Your task to perform on an android device: Is it going to rain tomorrow? Image 0: 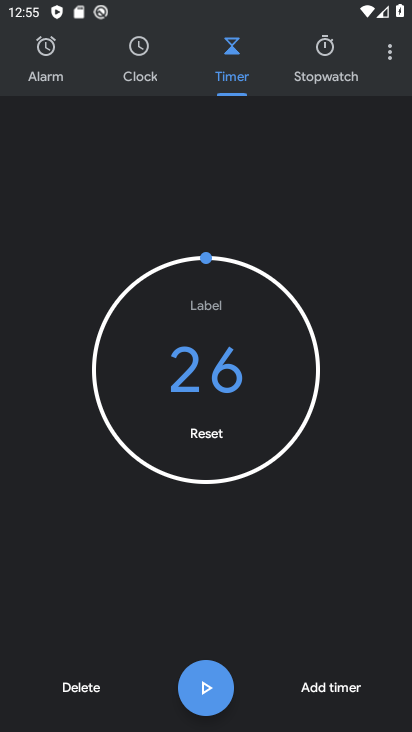
Step 0: press home button
Your task to perform on an android device: Is it going to rain tomorrow? Image 1: 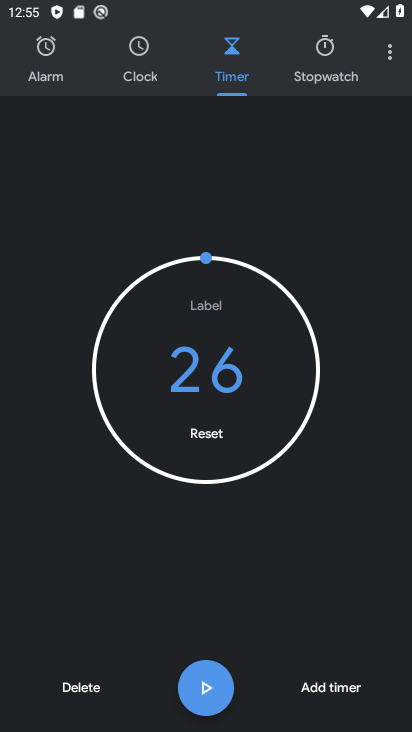
Step 1: drag from (214, 33) to (93, 14)
Your task to perform on an android device: Is it going to rain tomorrow? Image 2: 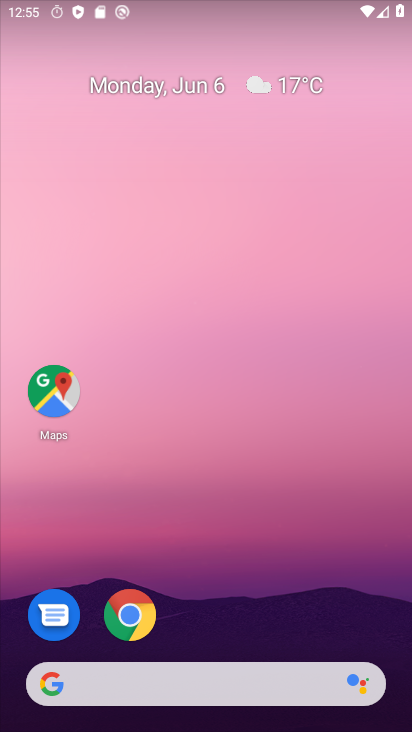
Step 2: drag from (176, 644) to (312, 29)
Your task to perform on an android device: Is it going to rain tomorrow? Image 3: 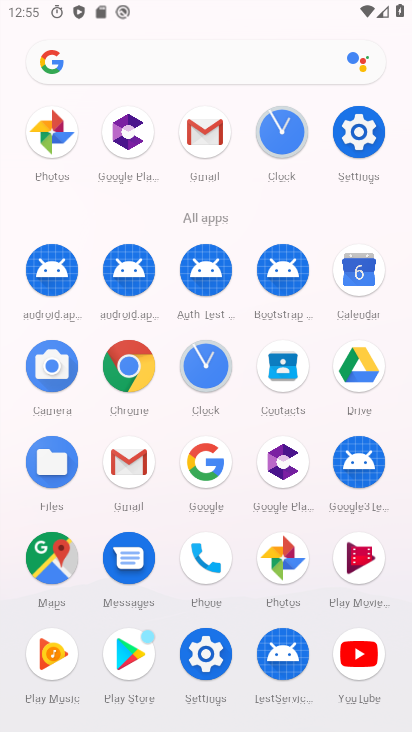
Step 3: click (143, 55)
Your task to perform on an android device: Is it going to rain tomorrow? Image 4: 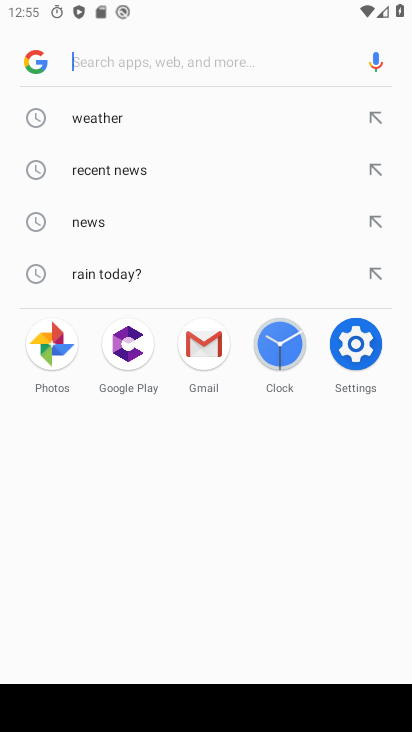
Step 4: type "rain tomorrow"
Your task to perform on an android device: Is it going to rain tomorrow? Image 5: 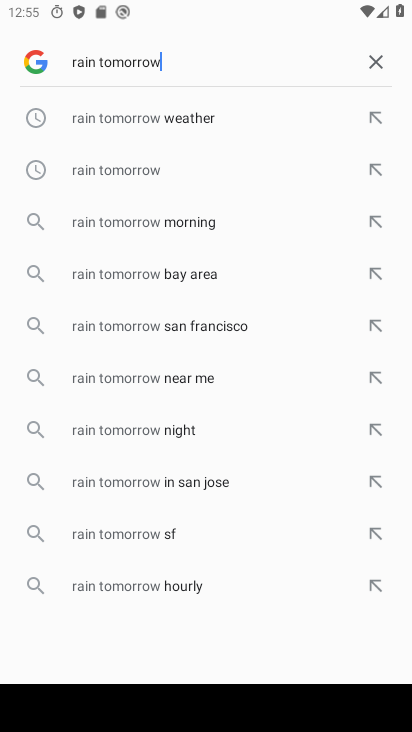
Step 5: click (144, 177)
Your task to perform on an android device: Is it going to rain tomorrow? Image 6: 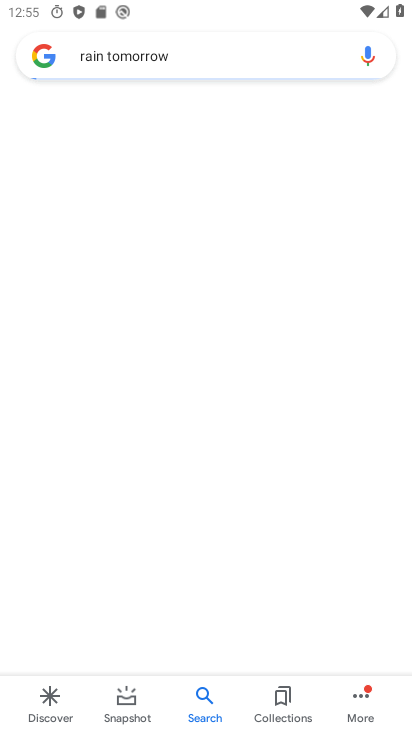
Step 6: task complete